Your task to perform on an android device: turn off location history Image 0: 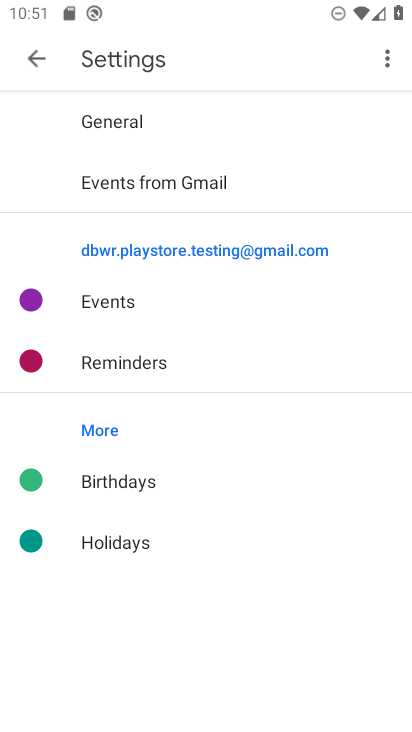
Step 0: press home button
Your task to perform on an android device: turn off location history Image 1: 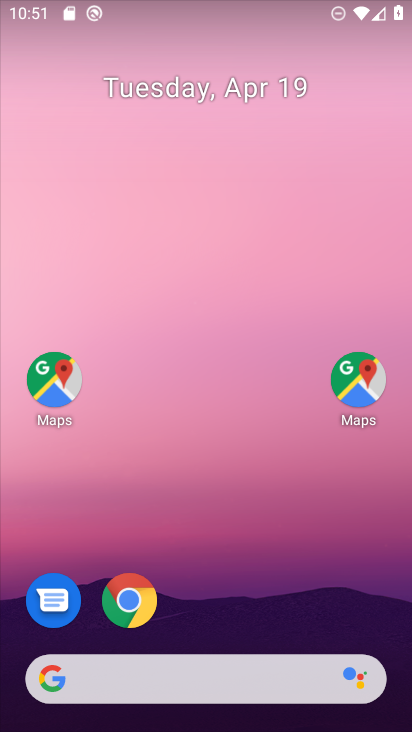
Step 1: drag from (274, 637) to (139, 7)
Your task to perform on an android device: turn off location history Image 2: 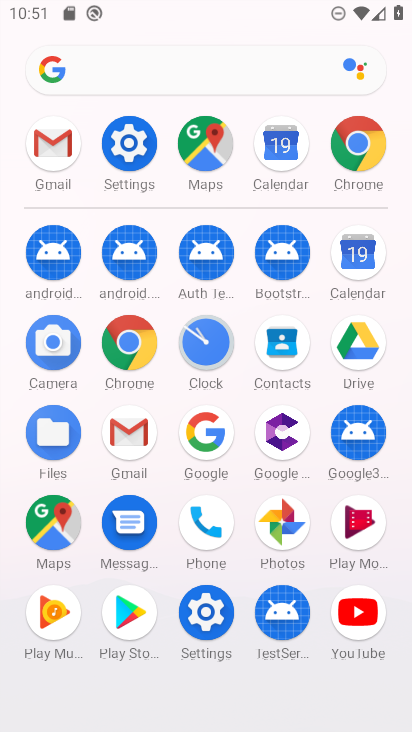
Step 2: click (207, 628)
Your task to perform on an android device: turn off location history Image 3: 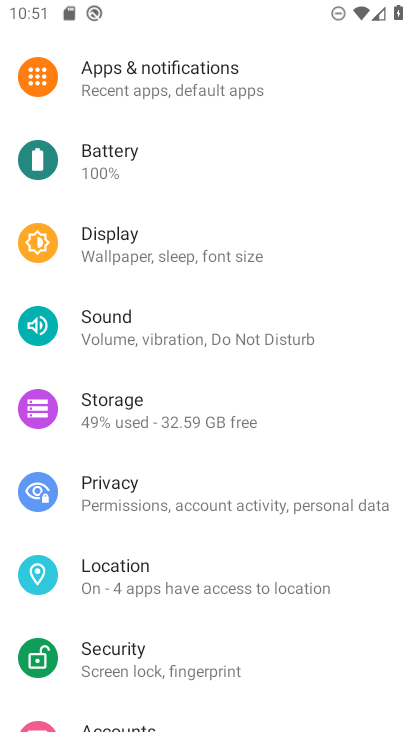
Step 3: click (196, 581)
Your task to perform on an android device: turn off location history Image 4: 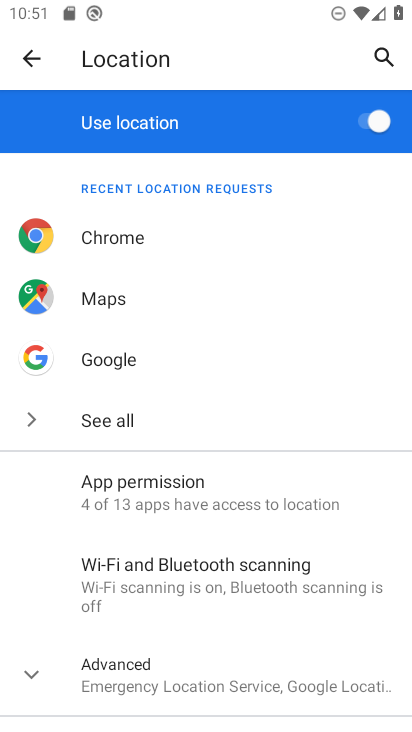
Step 4: drag from (190, 655) to (203, 230)
Your task to perform on an android device: turn off location history Image 5: 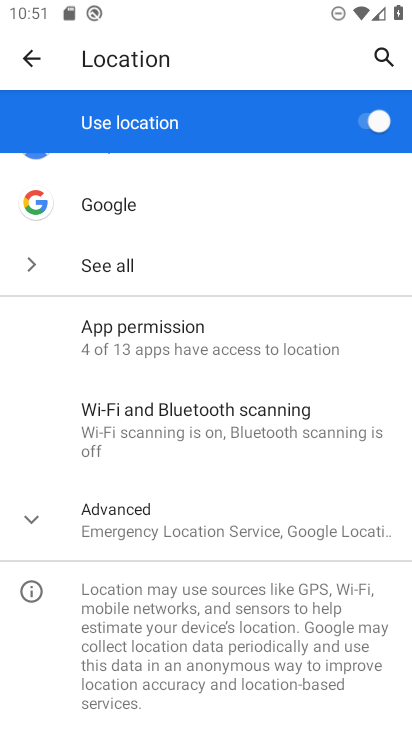
Step 5: click (181, 521)
Your task to perform on an android device: turn off location history Image 6: 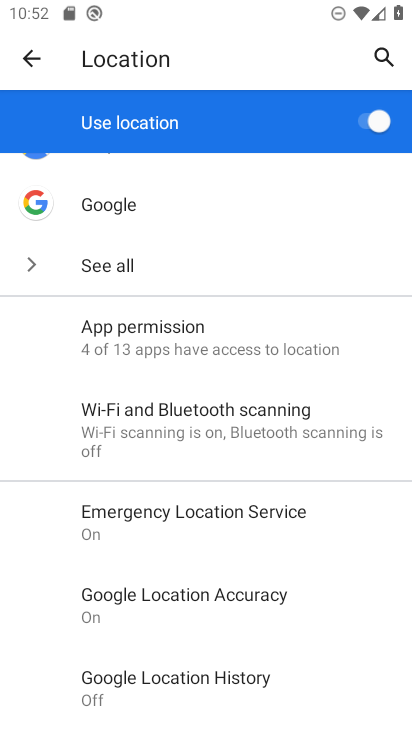
Step 6: click (210, 685)
Your task to perform on an android device: turn off location history Image 7: 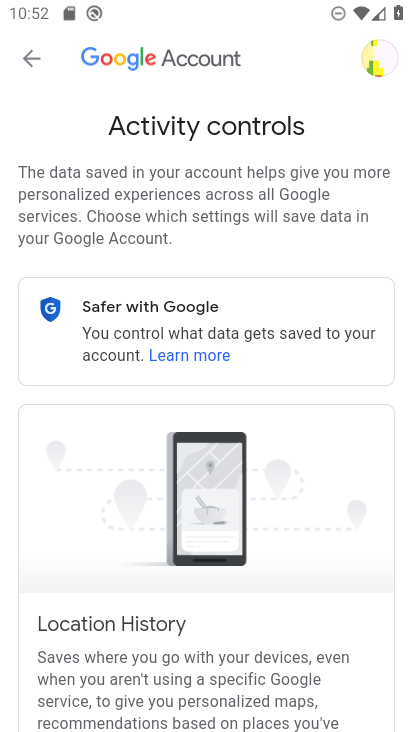
Step 7: task complete